Your task to perform on an android device: make emails show in primary in the gmail app Image 0: 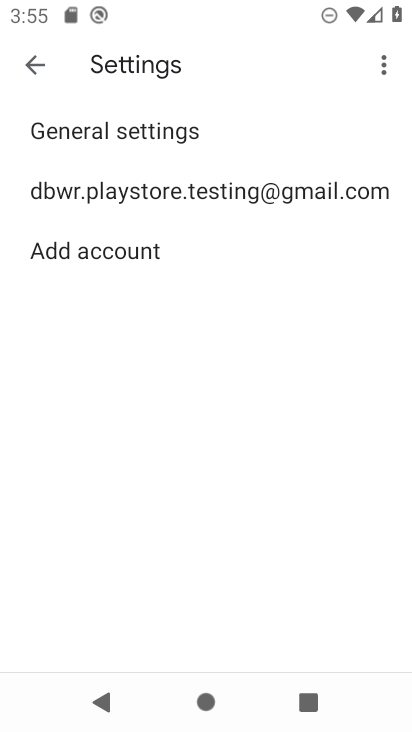
Step 0: press home button
Your task to perform on an android device: make emails show in primary in the gmail app Image 1: 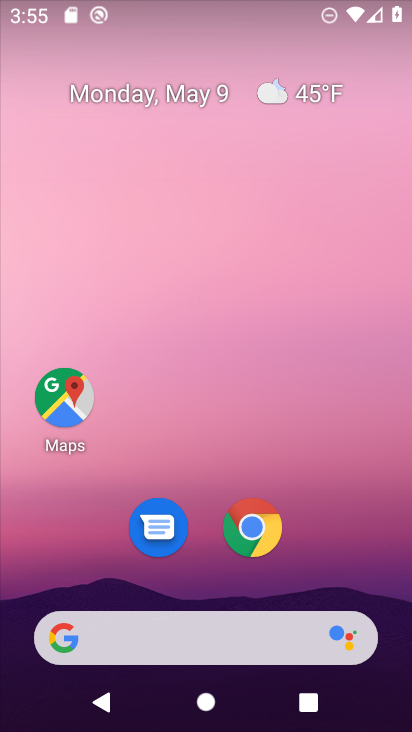
Step 1: drag from (387, 564) to (233, 110)
Your task to perform on an android device: make emails show in primary in the gmail app Image 2: 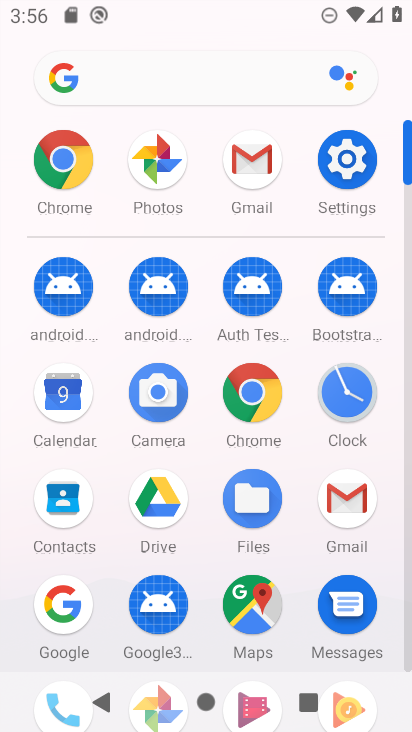
Step 2: click (268, 142)
Your task to perform on an android device: make emails show in primary in the gmail app Image 3: 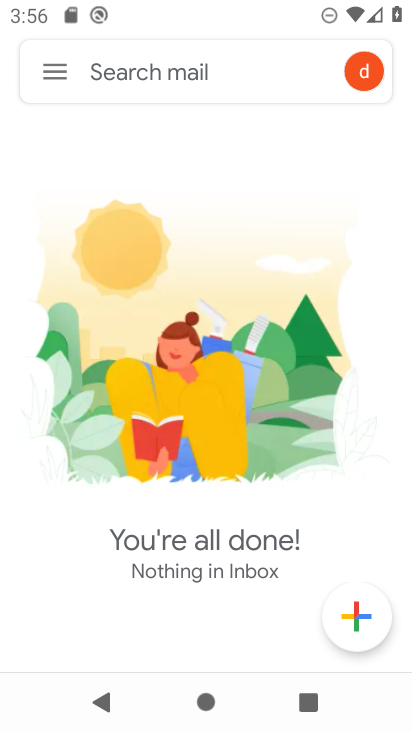
Step 3: click (54, 70)
Your task to perform on an android device: make emails show in primary in the gmail app Image 4: 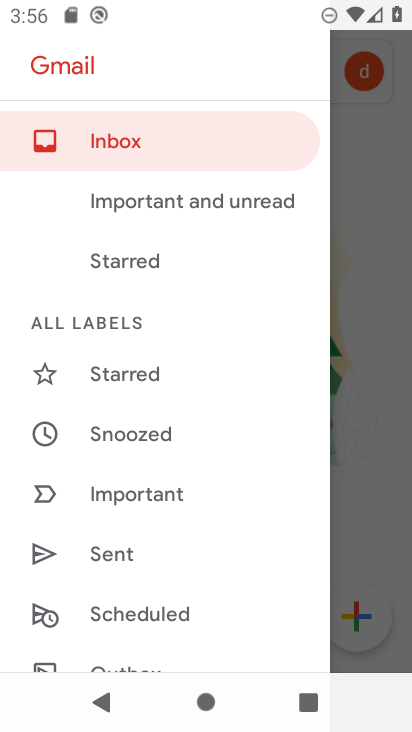
Step 4: drag from (210, 617) to (219, 214)
Your task to perform on an android device: make emails show in primary in the gmail app Image 5: 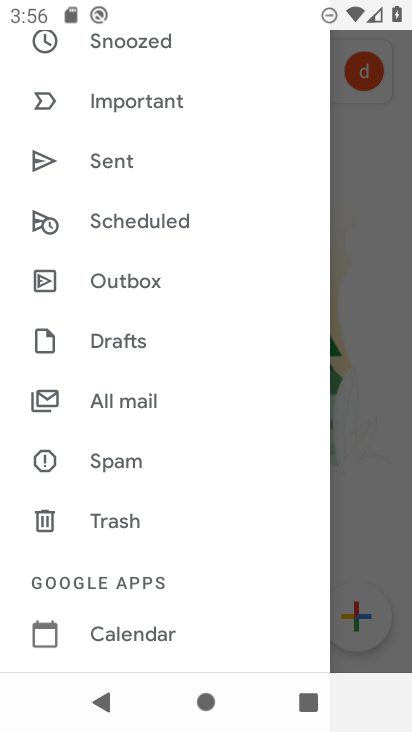
Step 5: drag from (246, 578) to (245, 150)
Your task to perform on an android device: make emails show in primary in the gmail app Image 6: 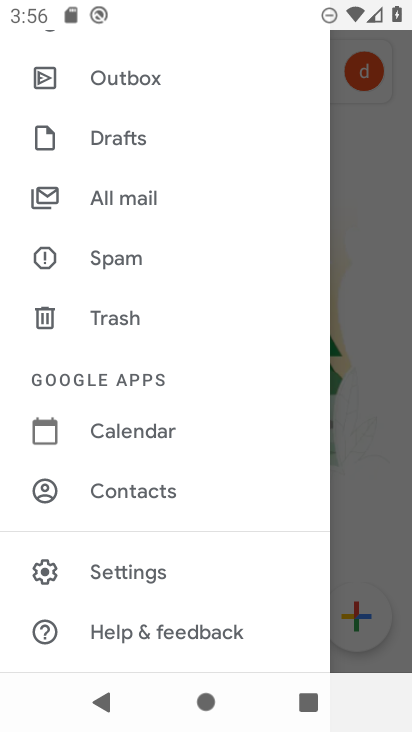
Step 6: click (213, 573)
Your task to perform on an android device: make emails show in primary in the gmail app Image 7: 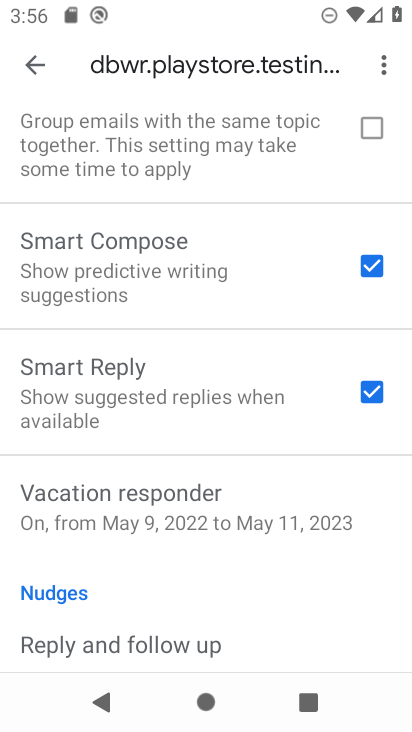
Step 7: drag from (258, 137) to (208, 672)
Your task to perform on an android device: make emails show in primary in the gmail app Image 8: 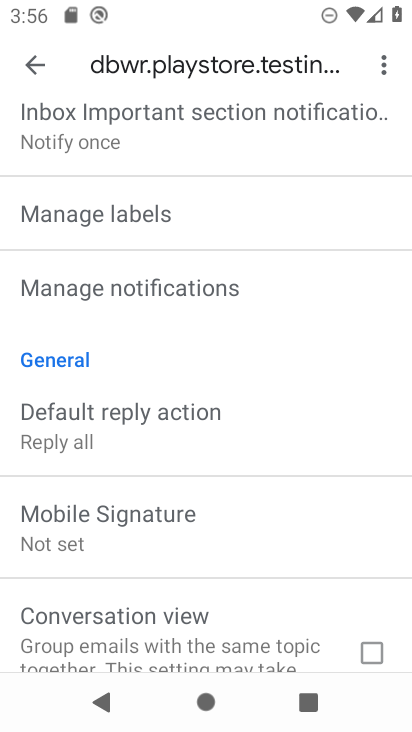
Step 8: drag from (218, 246) to (209, 731)
Your task to perform on an android device: make emails show in primary in the gmail app Image 9: 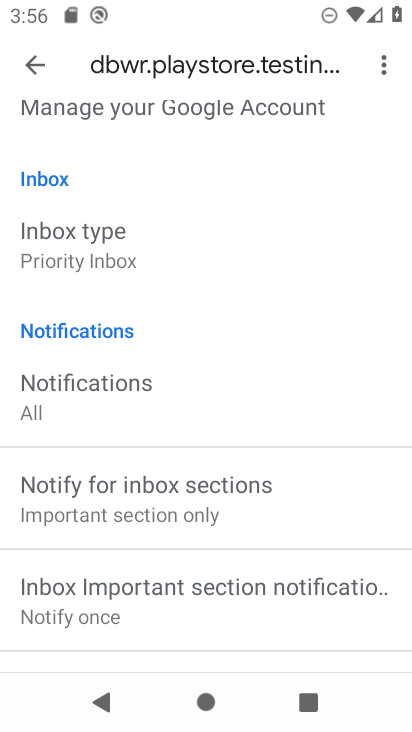
Step 9: click (193, 244)
Your task to perform on an android device: make emails show in primary in the gmail app Image 10: 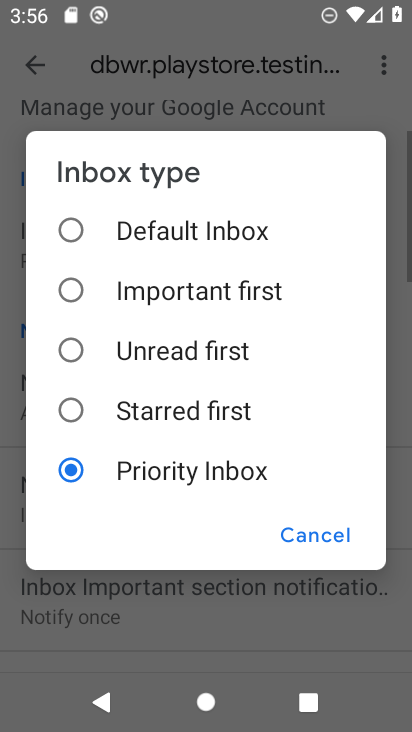
Step 10: click (196, 242)
Your task to perform on an android device: make emails show in primary in the gmail app Image 11: 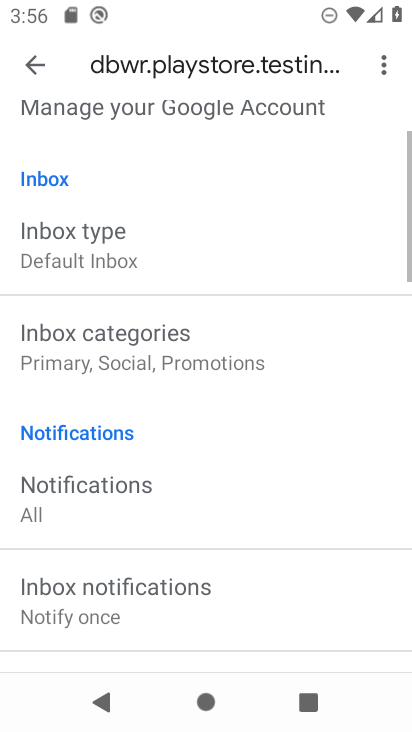
Step 11: task complete